Your task to perform on an android device: make emails show in primary in the gmail app Image 0: 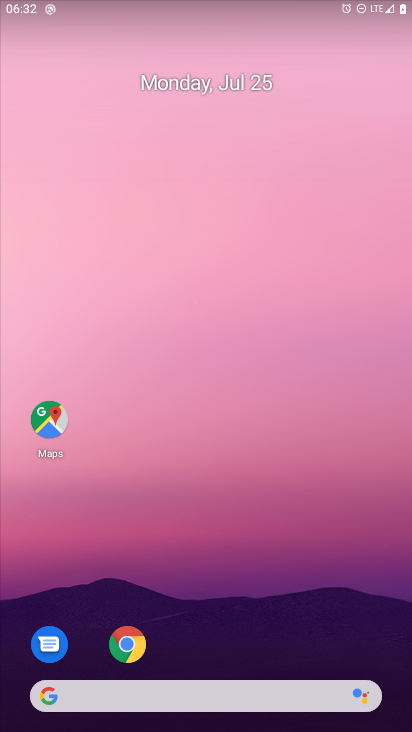
Step 0: drag from (249, 585) to (213, 201)
Your task to perform on an android device: make emails show in primary in the gmail app Image 1: 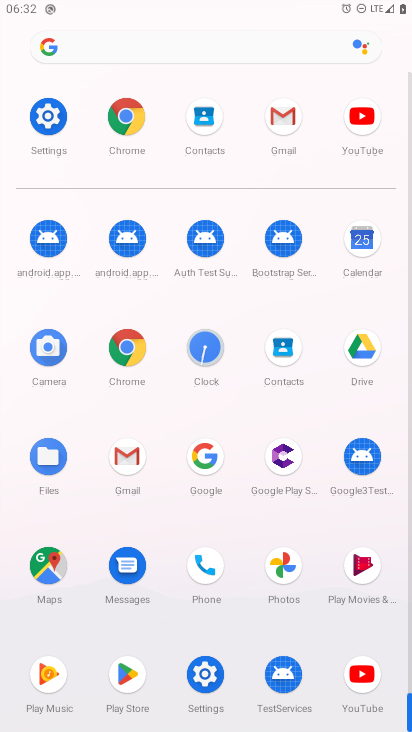
Step 1: click (280, 118)
Your task to perform on an android device: make emails show in primary in the gmail app Image 2: 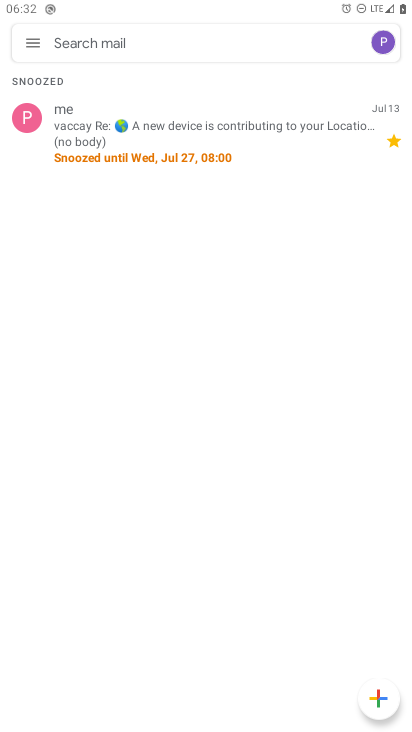
Step 2: click (30, 43)
Your task to perform on an android device: make emails show in primary in the gmail app Image 3: 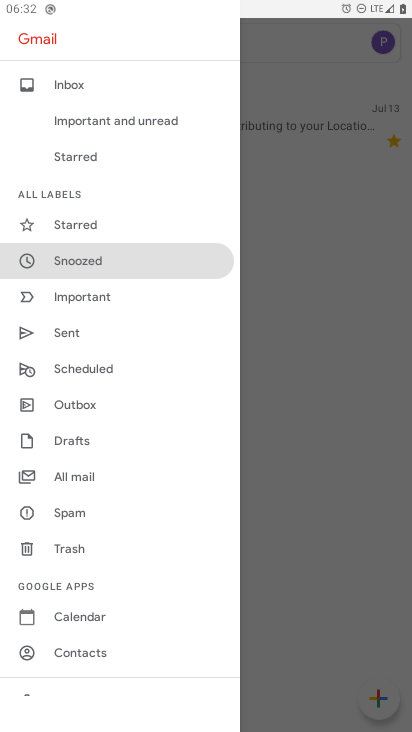
Step 3: drag from (192, 611) to (149, 146)
Your task to perform on an android device: make emails show in primary in the gmail app Image 4: 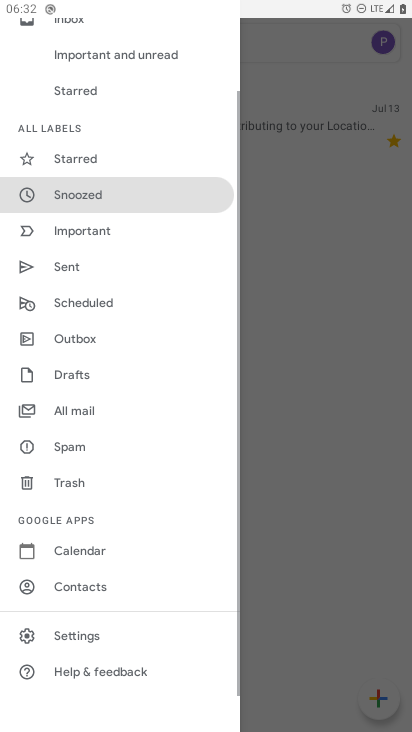
Step 4: click (74, 641)
Your task to perform on an android device: make emails show in primary in the gmail app Image 5: 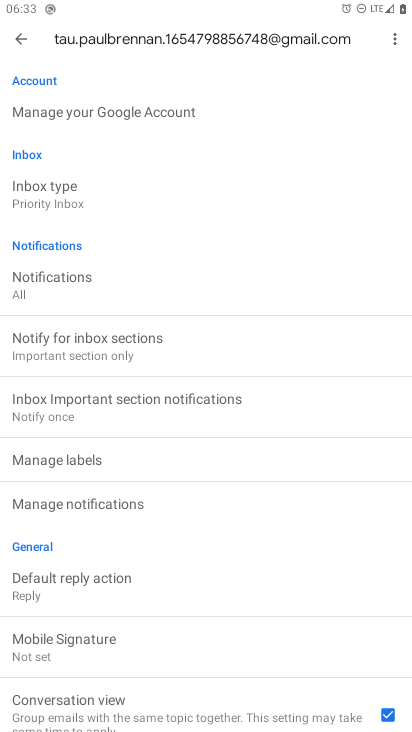
Step 5: task complete